Your task to perform on an android device: Open Google Chrome Image 0: 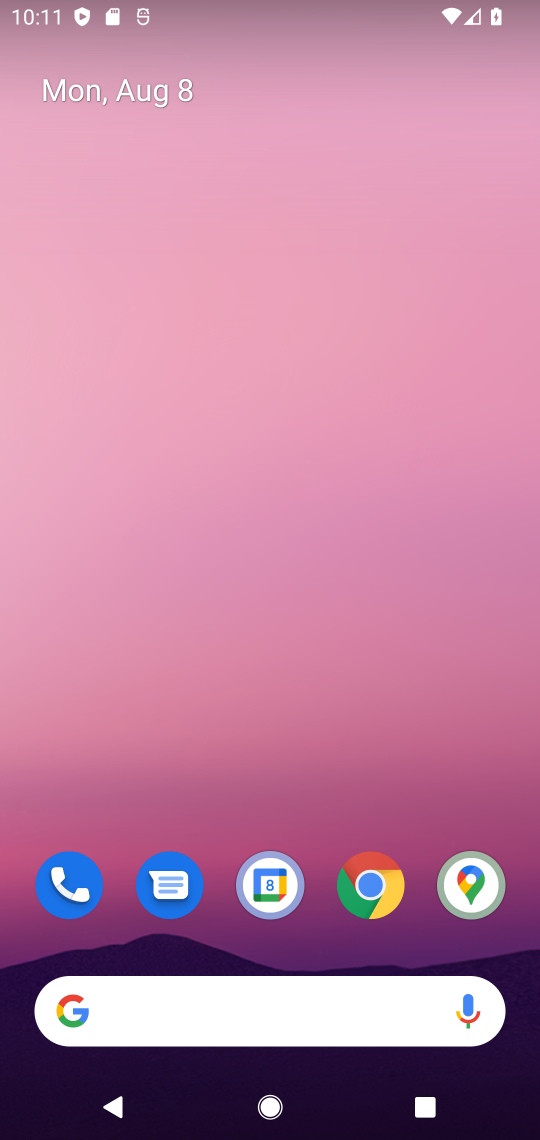
Step 0: drag from (173, 1066) to (364, 213)
Your task to perform on an android device: Open Google Chrome Image 1: 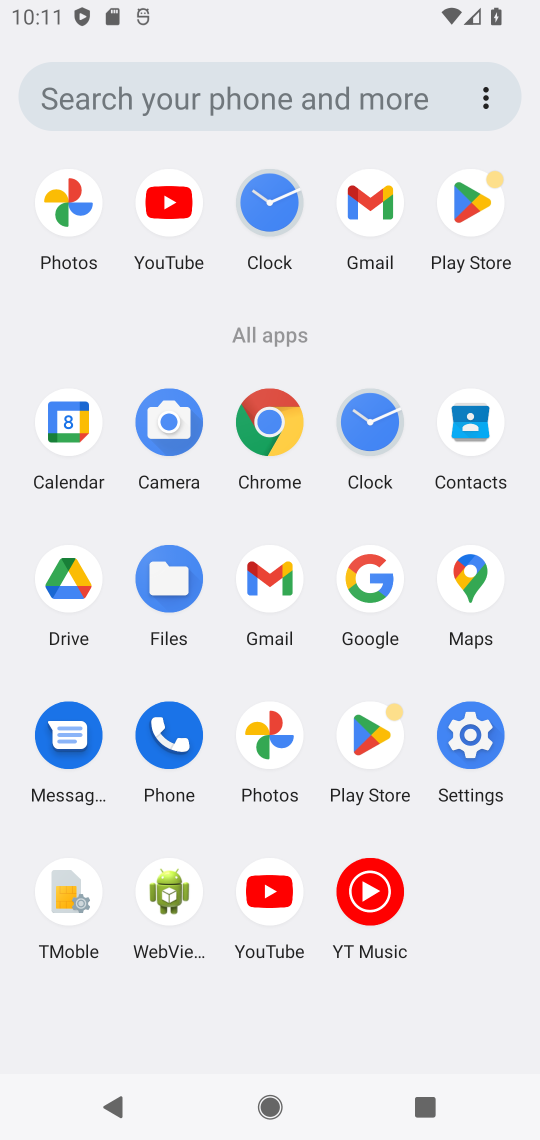
Step 1: click (275, 423)
Your task to perform on an android device: Open Google Chrome Image 2: 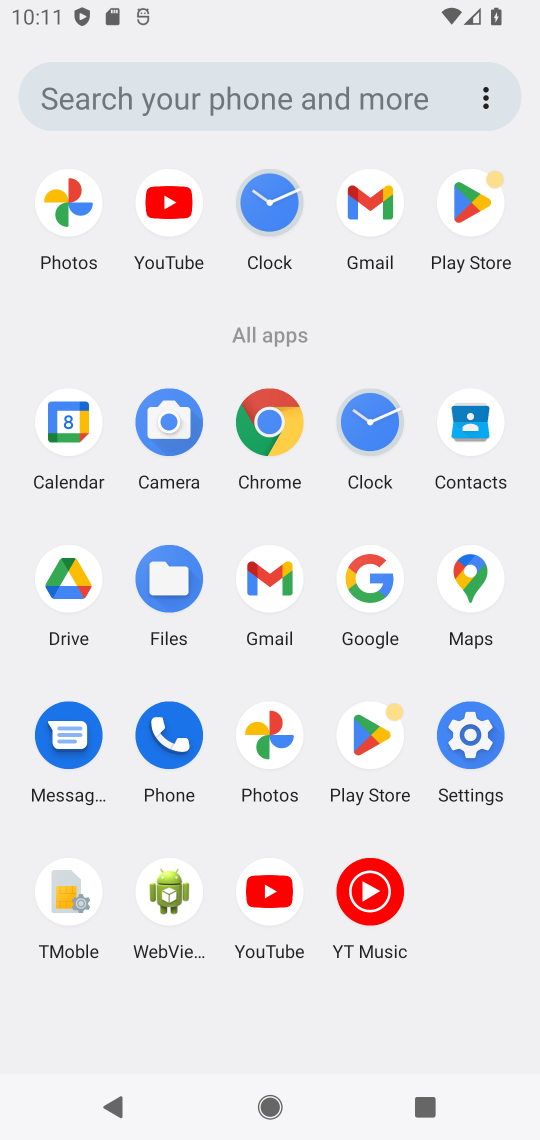
Step 2: click (275, 423)
Your task to perform on an android device: Open Google Chrome Image 3: 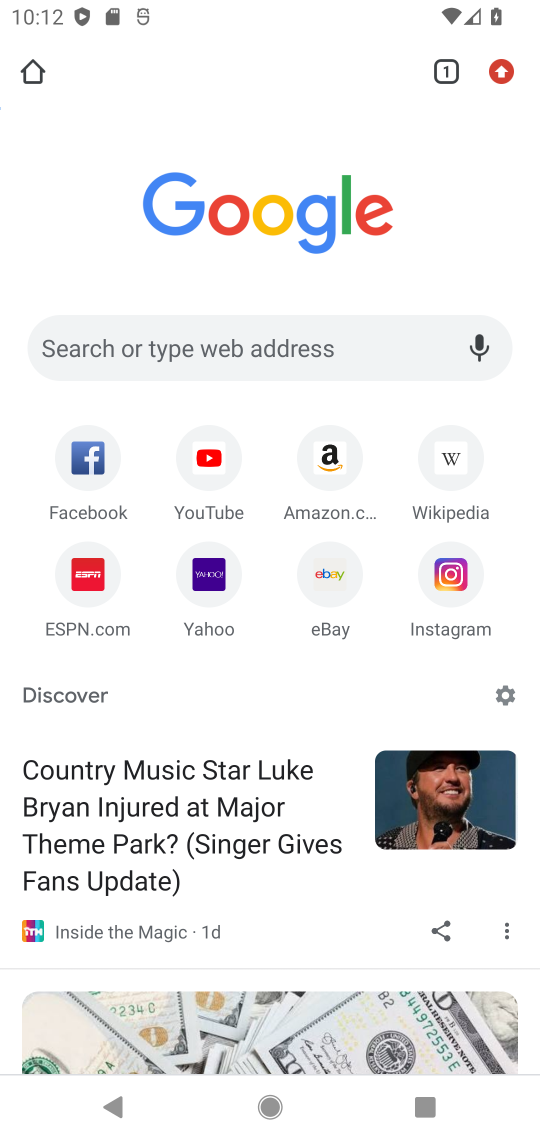
Step 3: task complete